Your task to perform on an android device: Toggle the flashlight Image 0: 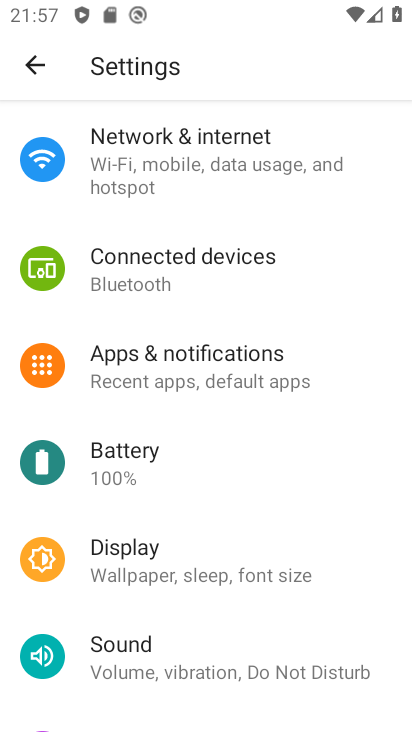
Step 0: drag from (183, 465) to (166, 319)
Your task to perform on an android device: Toggle the flashlight Image 1: 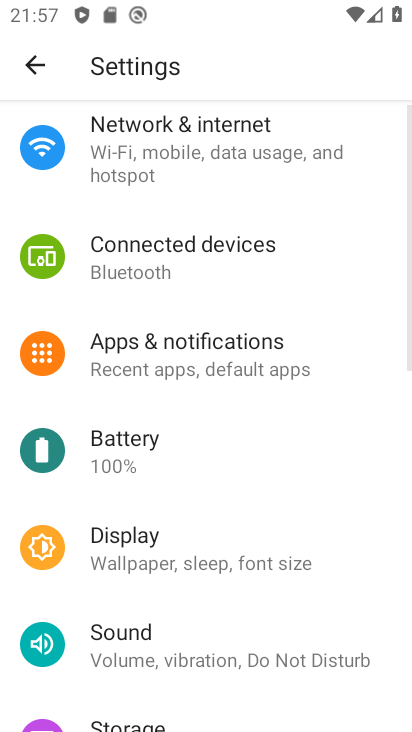
Step 1: task complete